Your task to perform on an android device: Go to Reddit.com Image 0: 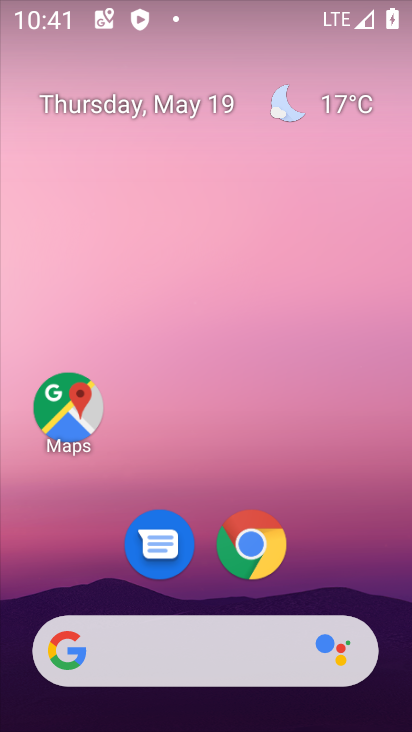
Step 0: click (180, 656)
Your task to perform on an android device: Go to Reddit.com Image 1: 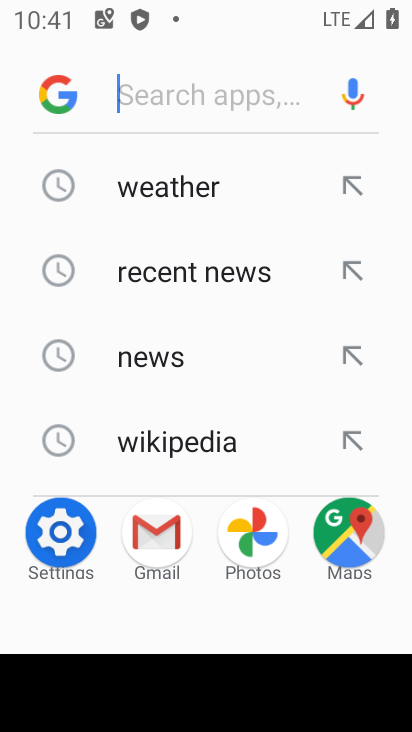
Step 1: type "reddit.com"
Your task to perform on an android device: Go to Reddit.com Image 2: 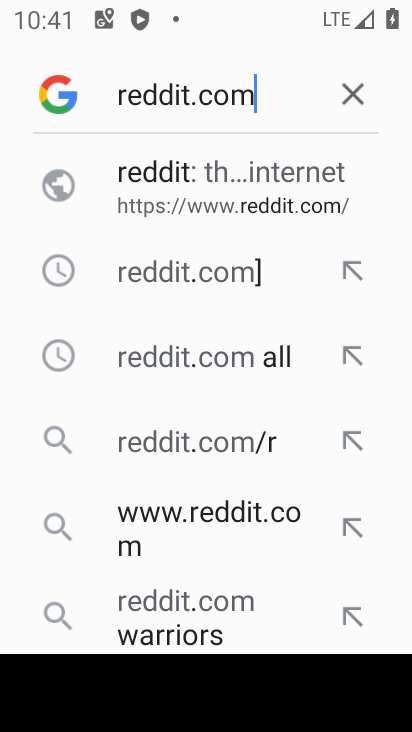
Step 2: click (200, 182)
Your task to perform on an android device: Go to Reddit.com Image 3: 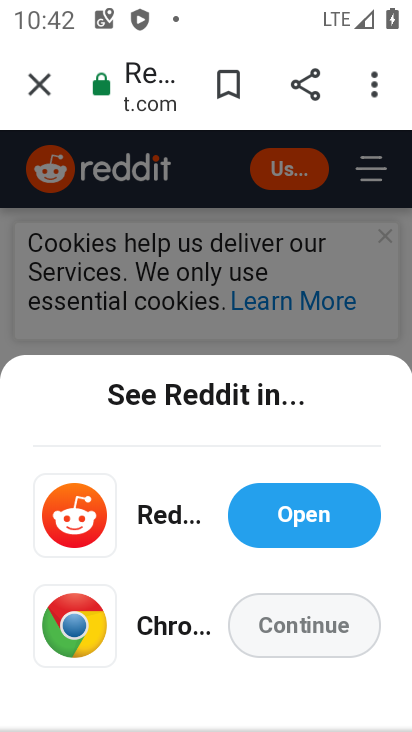
Step 3: task complete